Your task to perform on an android device: check battery use Image 0: 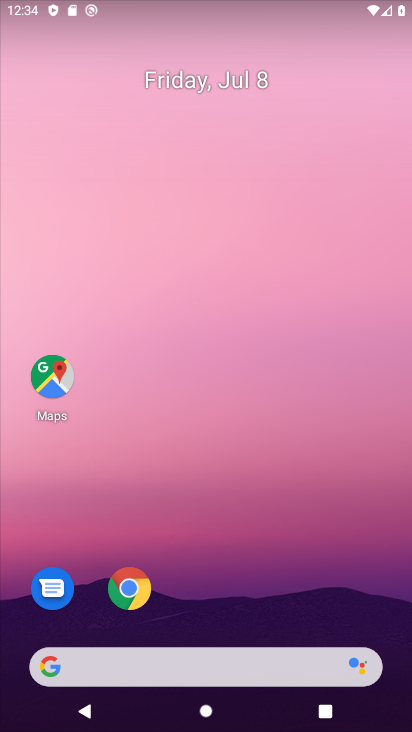
Step 0: press home button
Your task to perform on an android device: check battery use Image 1: 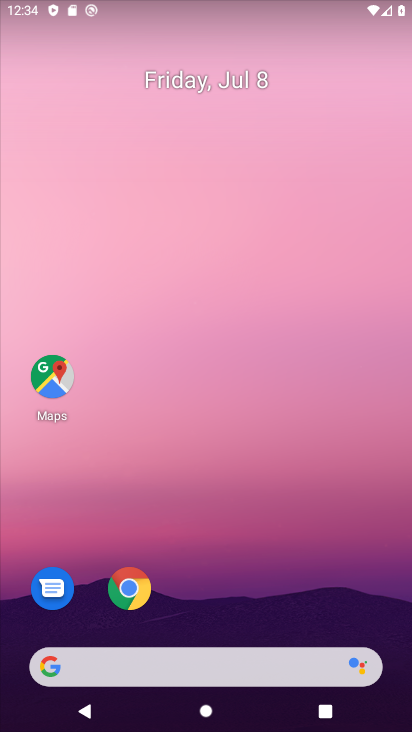
Step 1: drag from (206, 591) to (270, 6)
Your task to perform on an android device: check battery use Image 2: 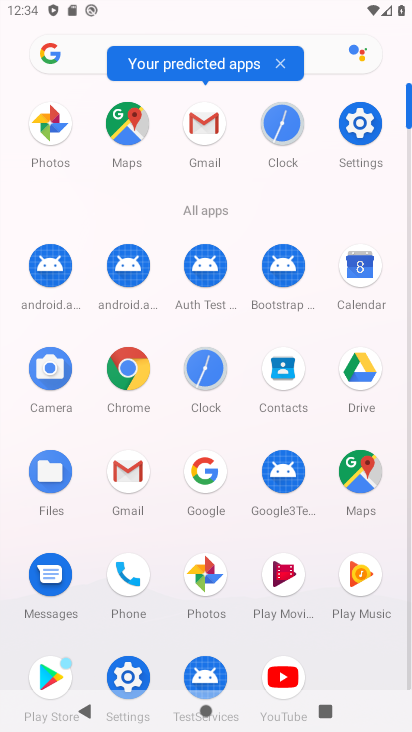
Step 2: click (125, 673)
Your task to perform on an android device: check battery use Image 3: 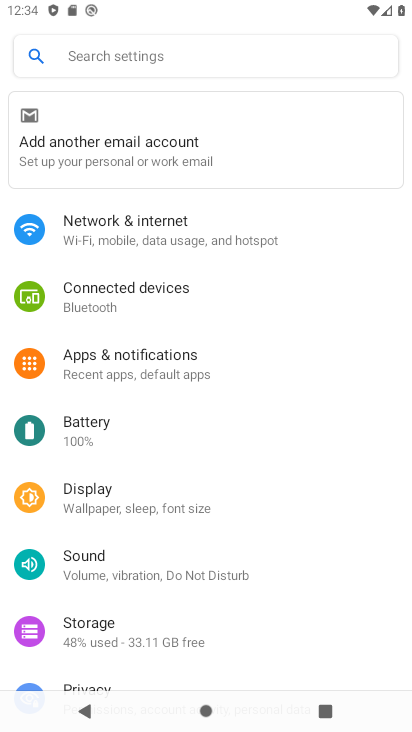
Step 3: click (109, 420)
Your task to perform on an android device: check battery use Image 4: 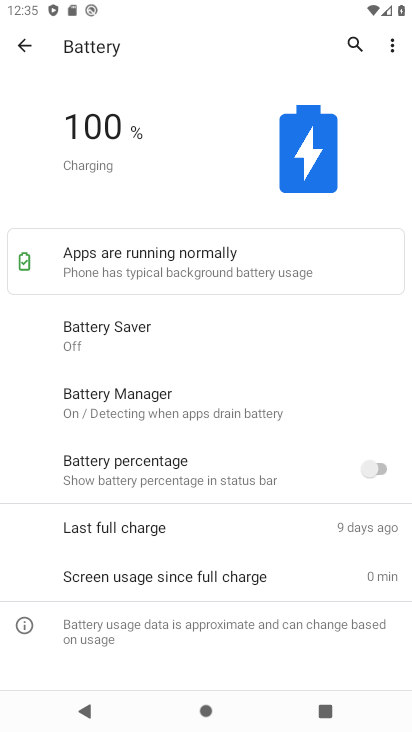
Step 4: click (391, 51)
Your task to perform on an android device: check battery use Image 5: 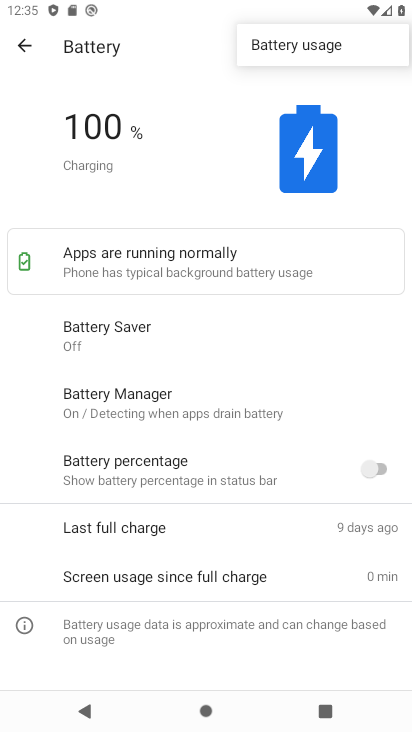
Step 5: click (326, 53)
Your task to perform on an android device: check battery use Image 6: 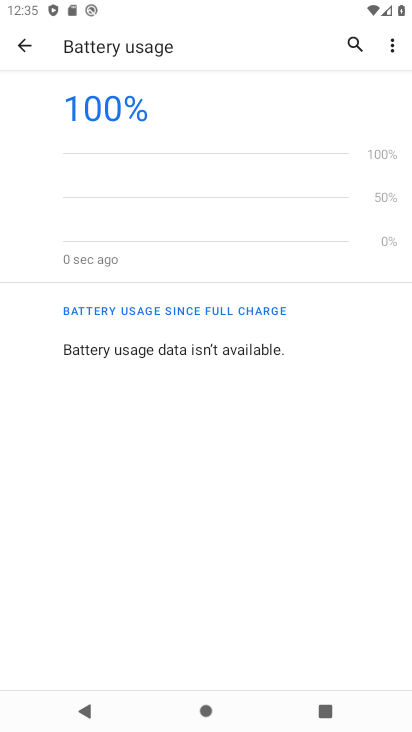
Step 6: task complete